Your task to perform on an android device: toggle notifications settings in the gmail app Image 0: 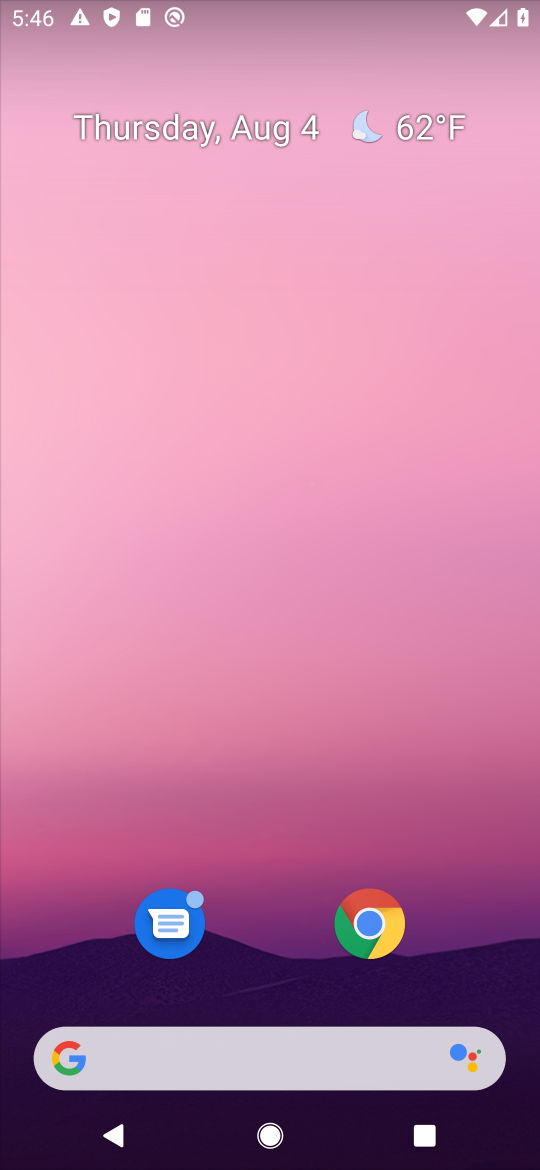
Step 0: drag from (487, 971) to (318, 128)
Your task to perform on an android device: toggle notifications settings in the gmail app Image 1: 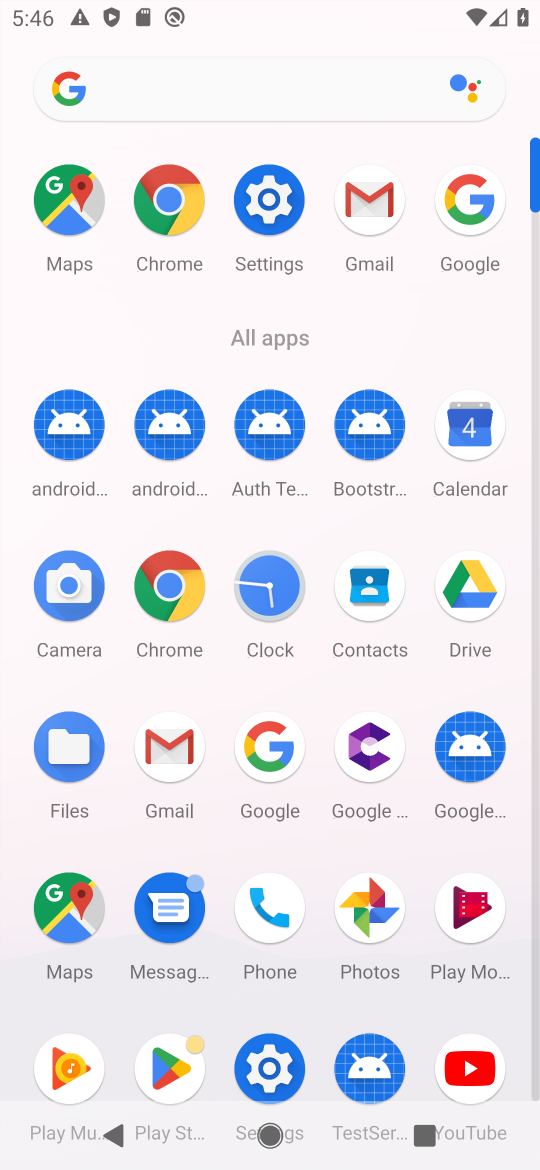
Step 1: click (163, 757)
Your task to perform on an android device: toggle notifications settings in the gmail app Image 2: 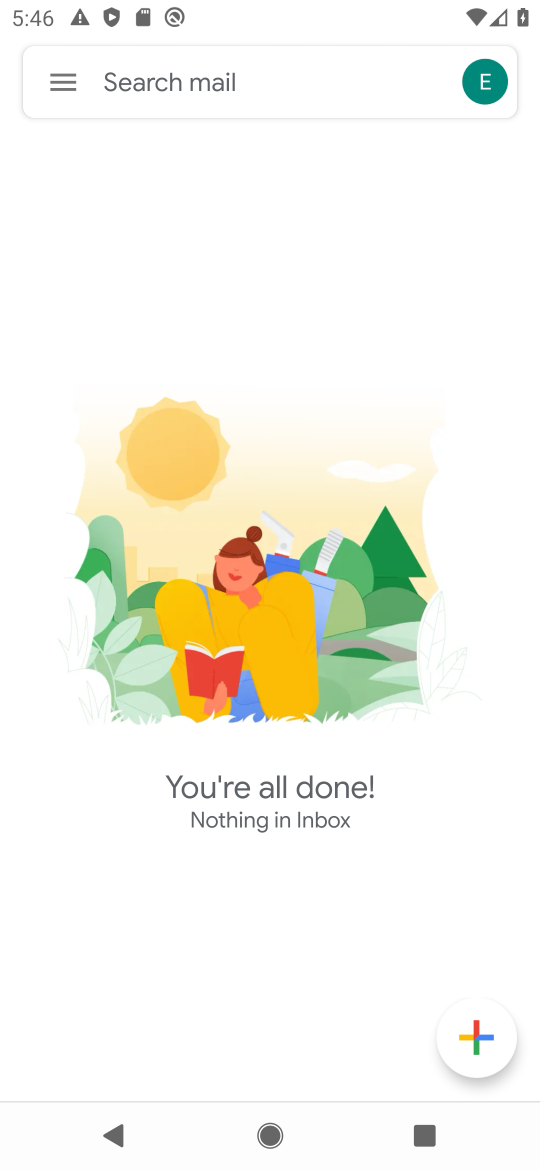
Step 2: click (58, 77)
Your task to perform on an android device: toggle notifications settings in the gmail app Image 3: 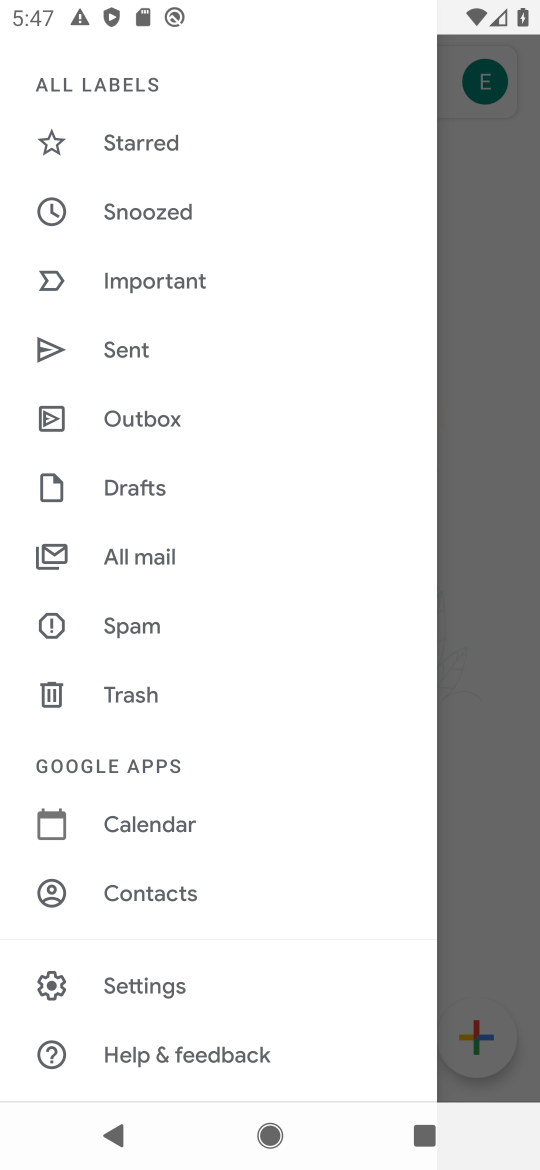
Step 3: click (189, 982)
Your task to perform on an android device: toggle notifications settings in the gmail app Image 4: 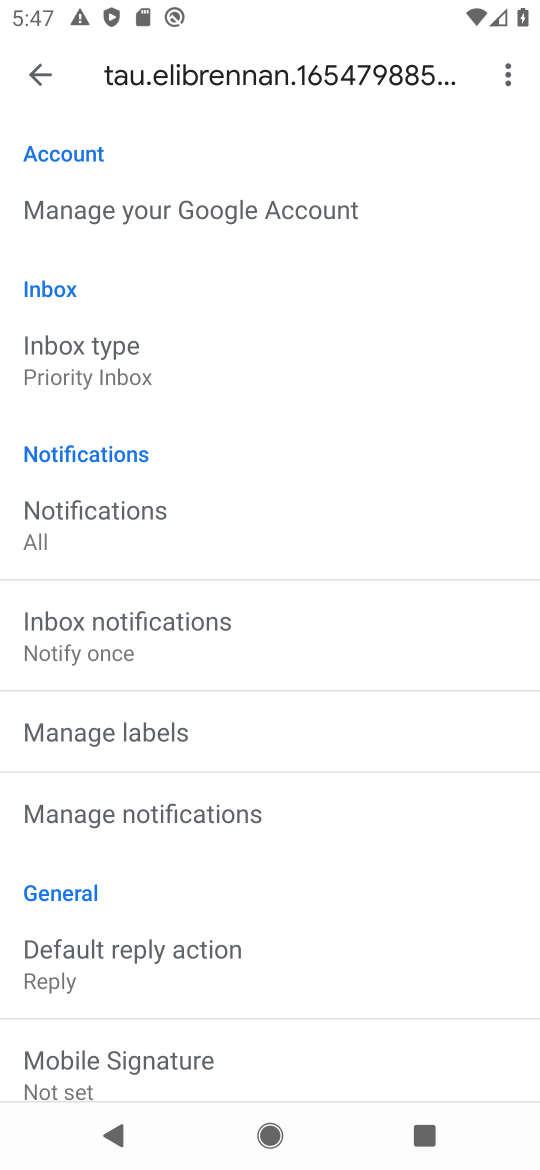
Step 4: drag from (334, 951) to (266, 471)
Your task to perform on an android device: toggle notifications settings in the gmail app Image 5: 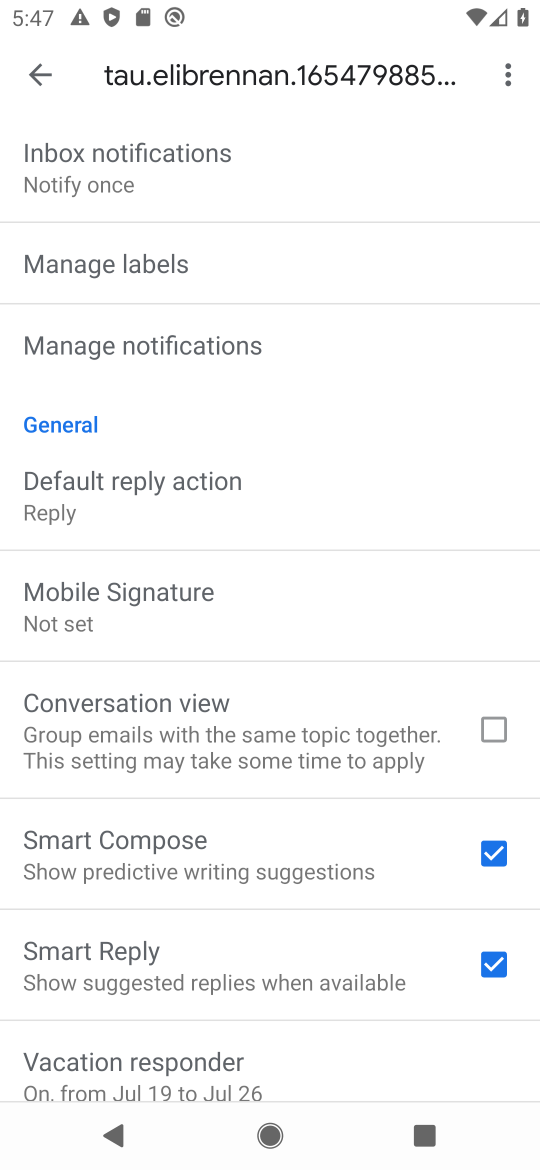
Step 5: click (194, 334)
Your task to perform on an android device: toggle notifications settings in the gmail app Image 6: 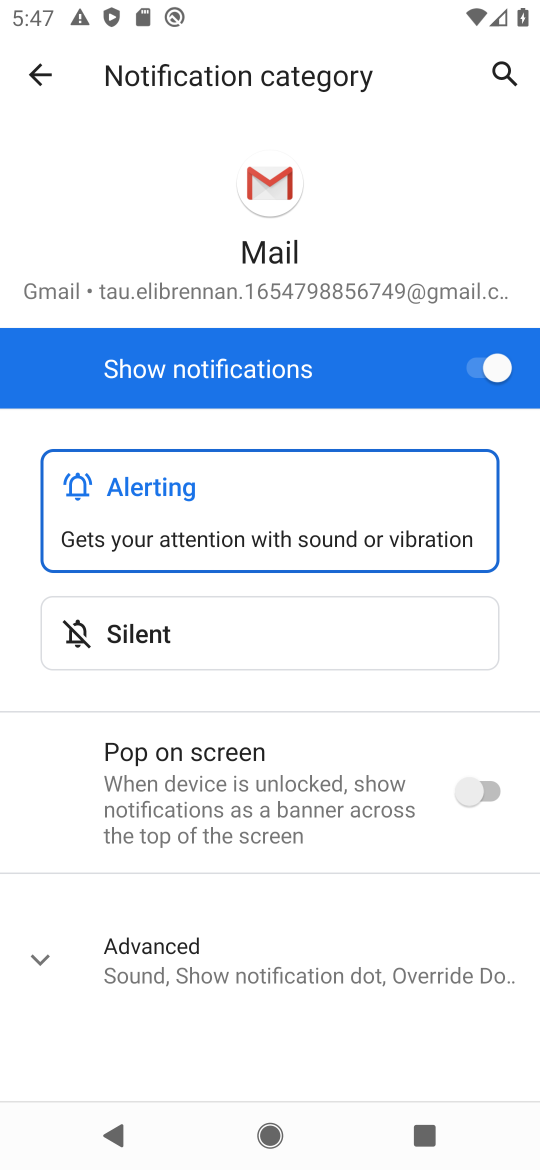
Step 6: click (484, 370)
Your task to perform on an android device: toggle notifications settings in the gmail app Image 7: 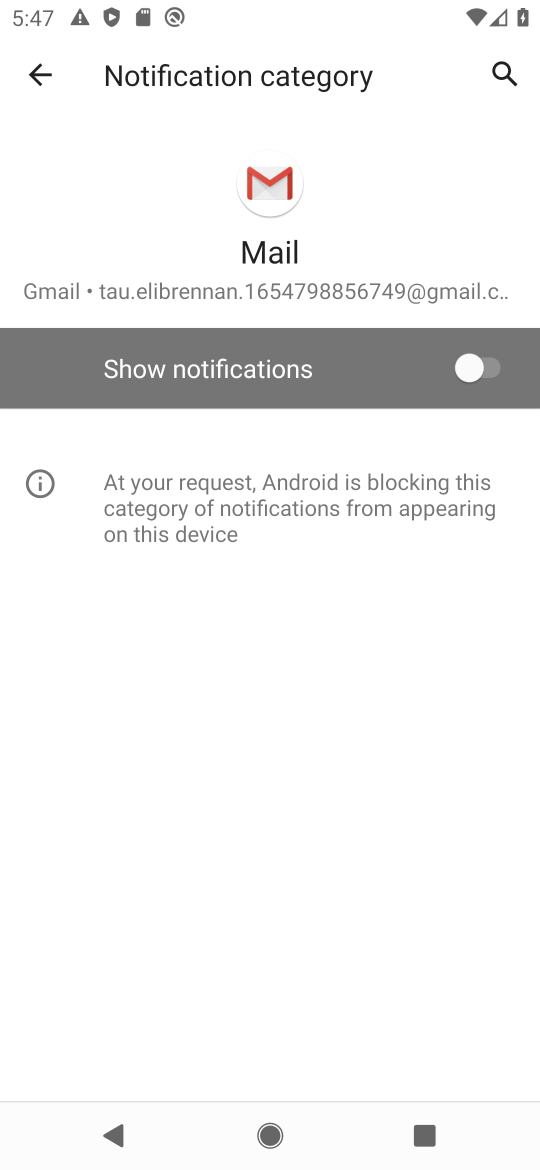
Step 7: task complete